Your task to perform on an android device: Open battery settings Image 0: 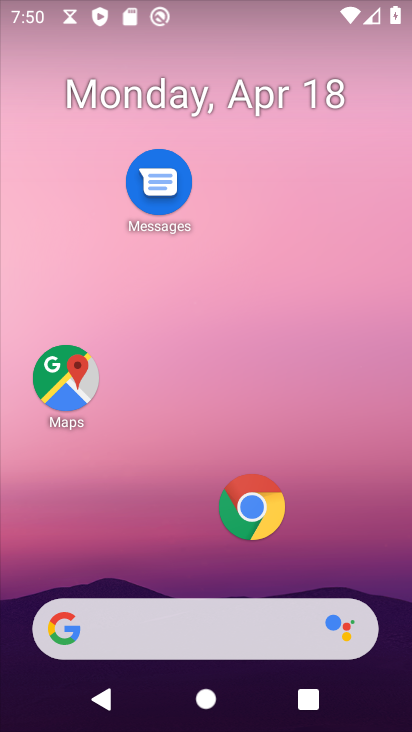
Step 0: drag from (223, 561) to (241, 148)
Your task to perform on an android device: Open battery settings Image 1: 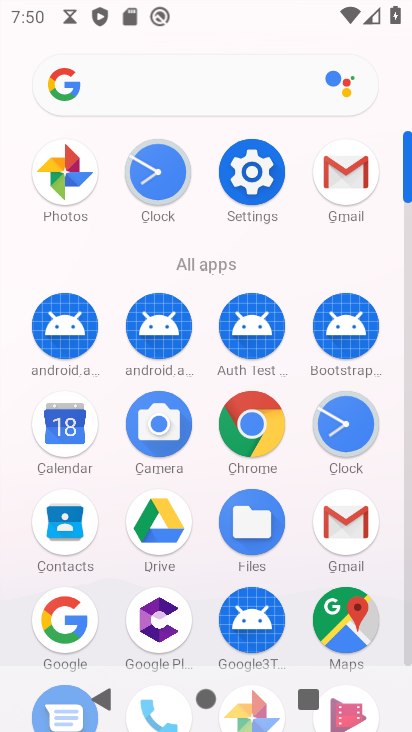
Step 1: click (244, 180)
Your task to perform on an android device: Open battery settings Image 2: 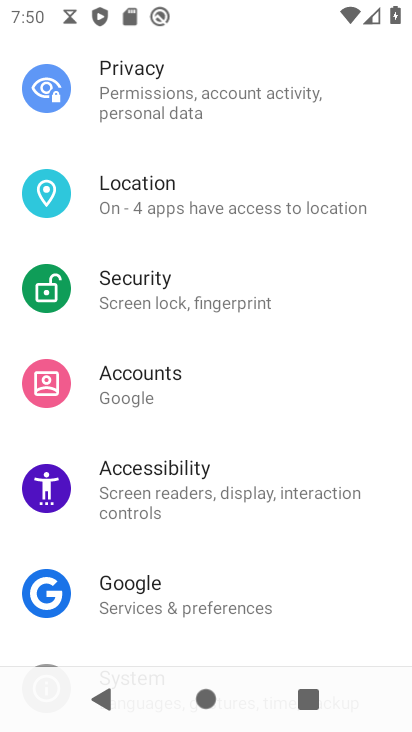
Step 2: drag from (127, 562) to (117, 215)
Your task to perform on an android device: Open battery settings Image 3: 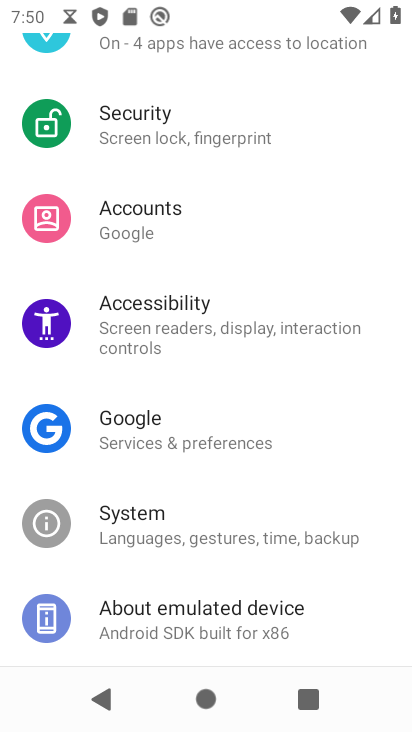
Step 3: drag from (170, 160) to (135, 556)
Your task to perform on an android device: Open battery settings Image 4: 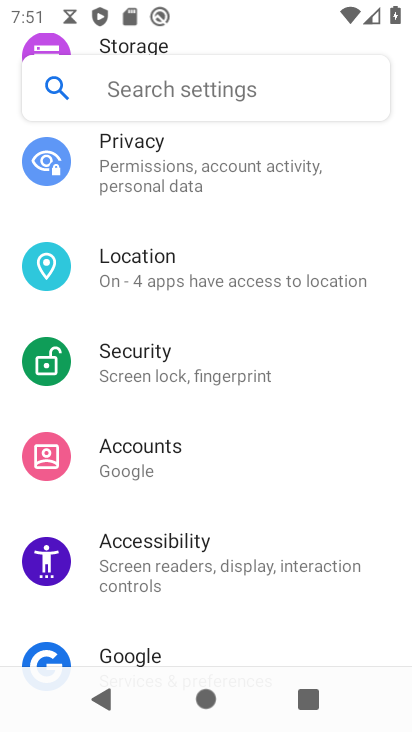
Step 4: drag from (199, 183) to (161, 602)
Your task to perform on an android device: Open battery settings Image 5: 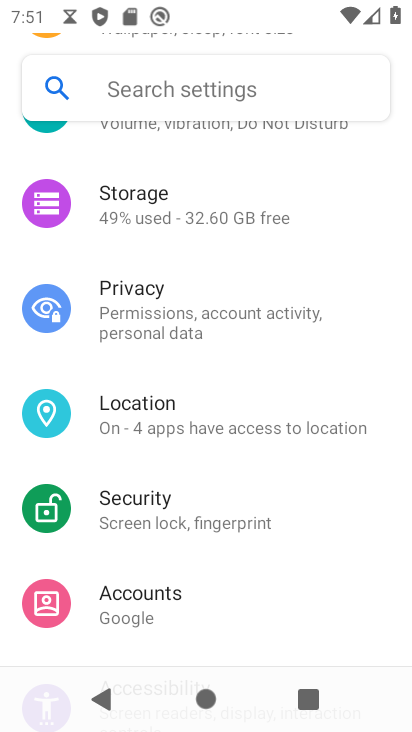
Step 5: drag from (208, 186) to (183, 638)
Your task to perform on an android device: Open battery settings Image 6: 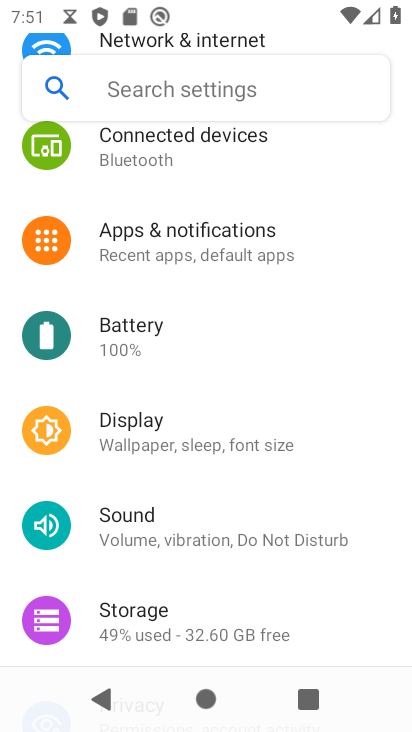
Step 6: click (149, 325)
Your task to perform on an android device: Open battery settings Image 7: 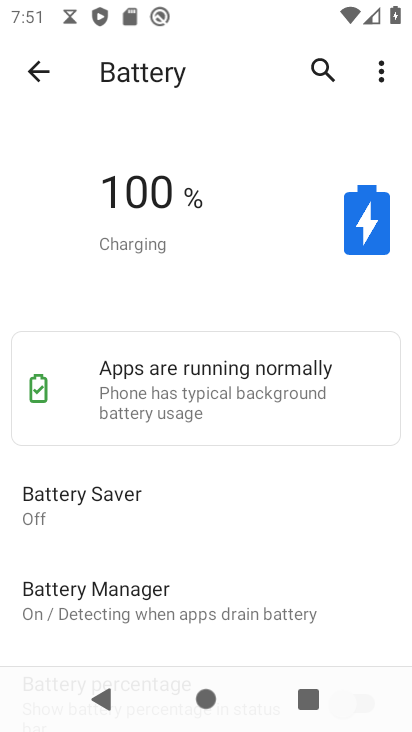
Step 7: click (376, 66)
Your task to perform on an android device: Open battery settings Image 8: 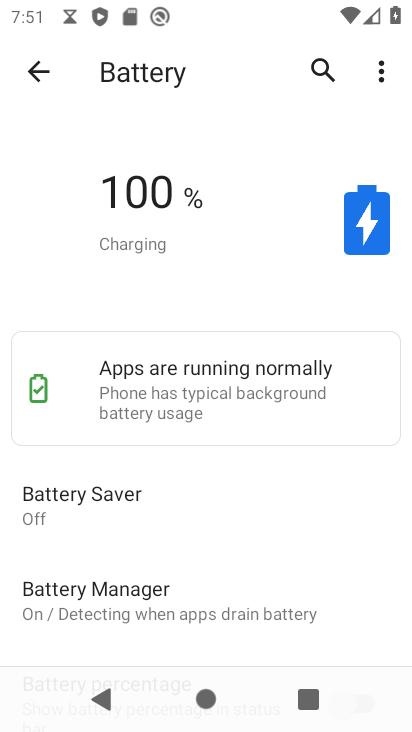
Step 8: click (265, 241)
Your task to perform on an android device: Open battery settings Image 9: 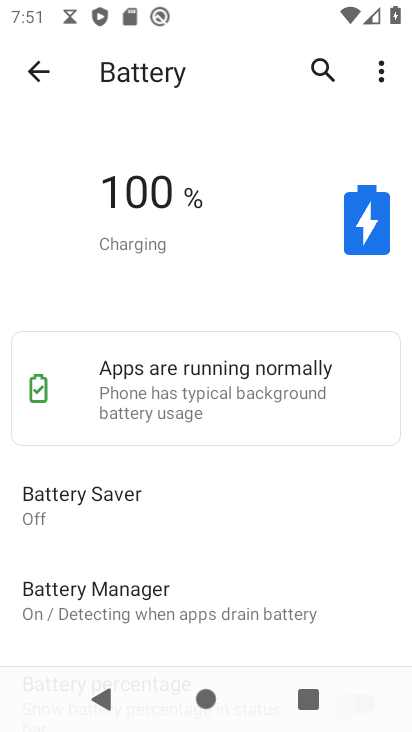
Step 9: click (379, 78)
Your task to perform on an android device: Open battery settings Image 10: 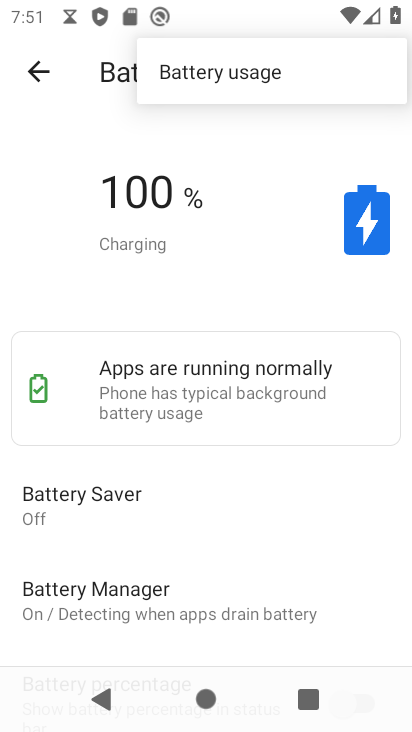
Step 10: click (214, 506)
Your task to perform on an android device: Open battery settings Image 11: 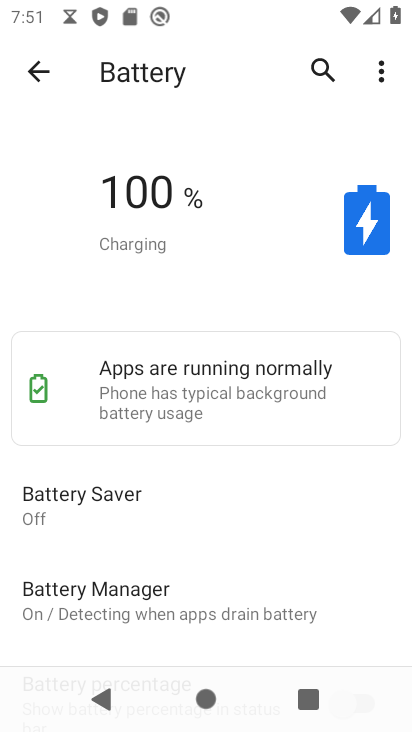
Step 11: task complete